Your task to perform on an android device: Open my contact list Image 0: 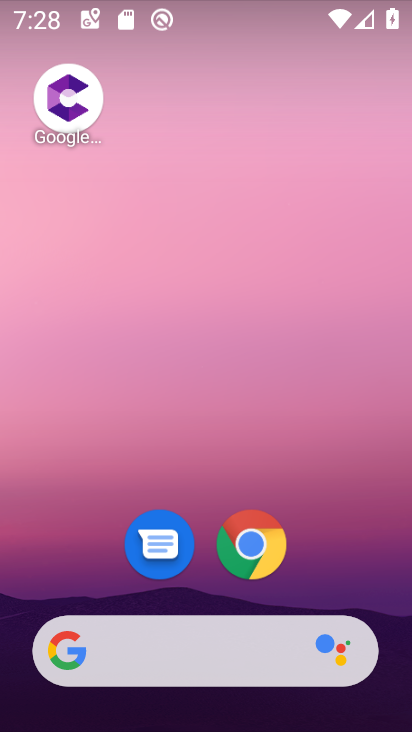
Step 0: drag from (229, 687) to (261, 99)
Your task to perform on an android device: Open my contact list Image 1: 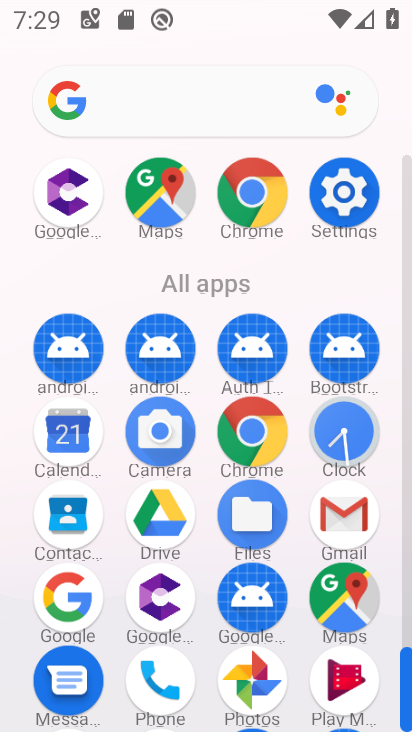
Step 1: click (162, 677)
Your task to perform on an android device: Open my contact list Image 2: 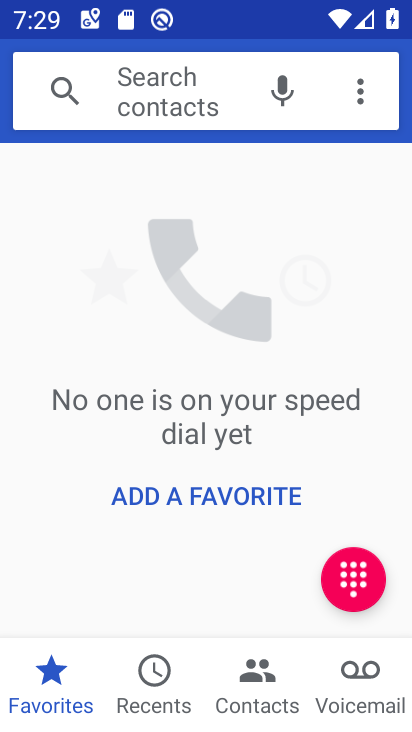
Step 2: click (268, 703)
Your task to perform on an android device: Open my contact list Image 3: 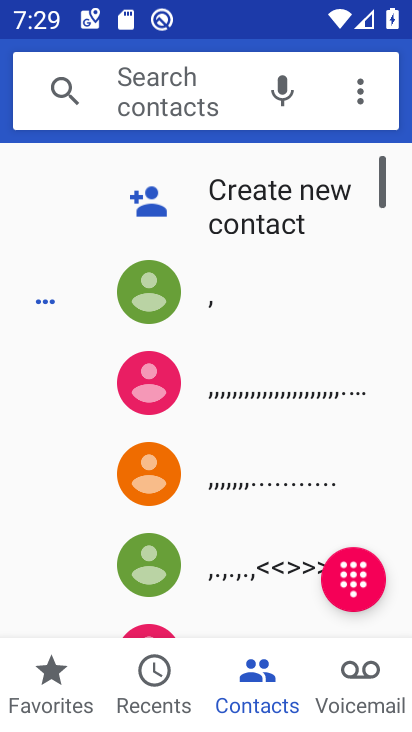
Step 3: task complete